Your task to perform on an android device: Go to notification settings Image 0: 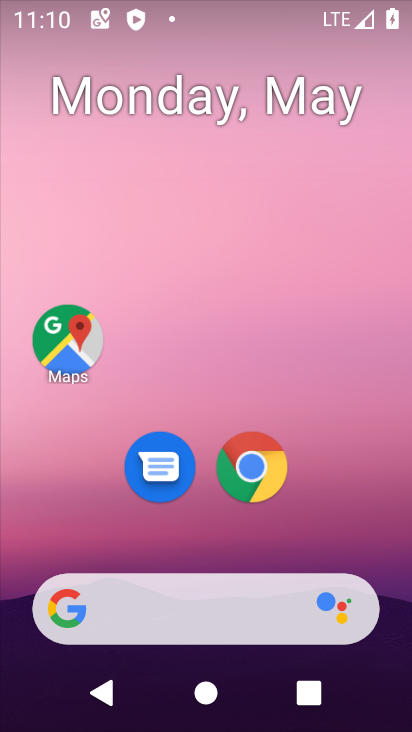
Step 0: drag from (377, 707) to (326, 233)
Your task to perform on an android device: Go to notification settings Image 1: 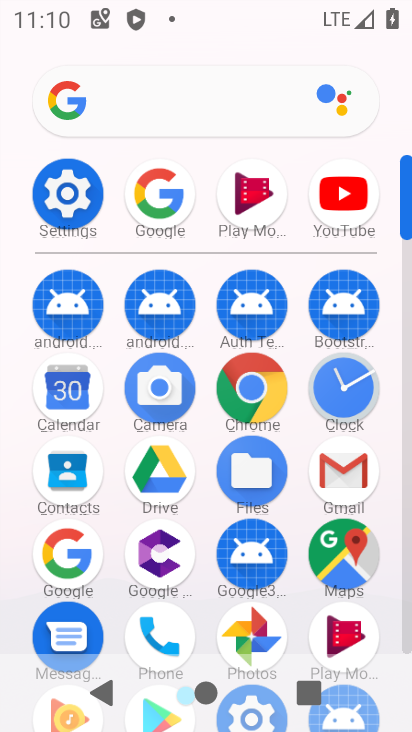
Step 1: click (74, 201)
Your task to perform on an android device: Go to notification settings Image 2: 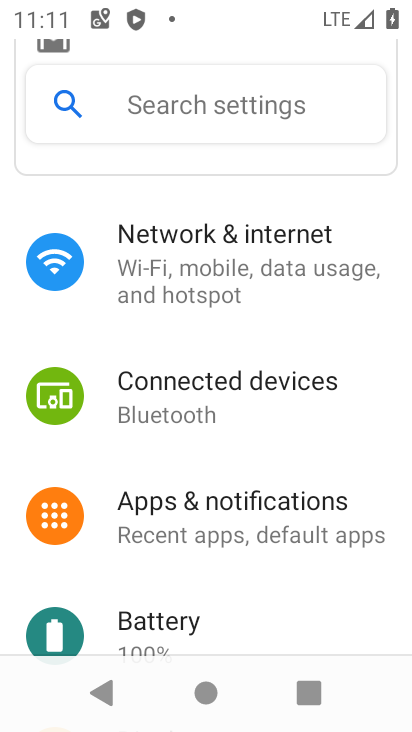
Step 2: click (224, 514)
Your task to perform on an android device: Go to notification settings Image 3: 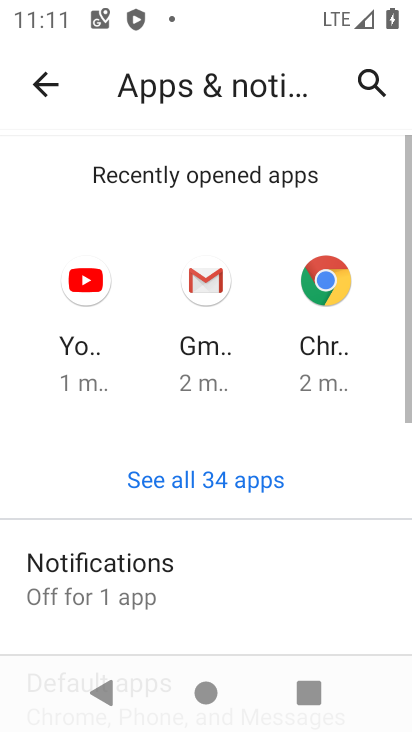
Step 3: click (115, 588)
Your task to perform on an android device: Go to notification settings Image 4: 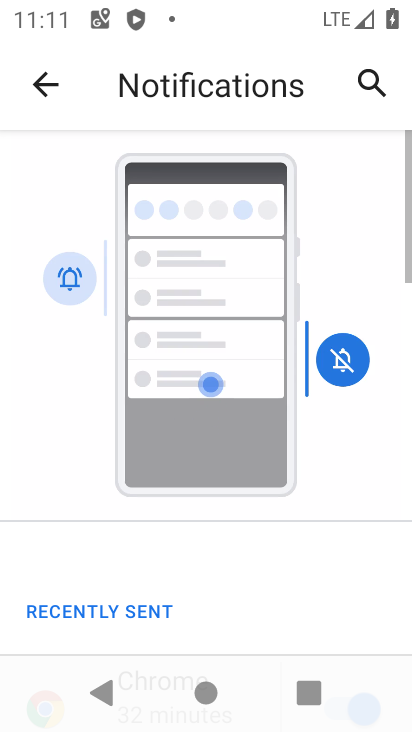
Step 4: drag from (273, 568) to (301, 179)
Your task to perform on an android device: Go to notification settings Image 5: 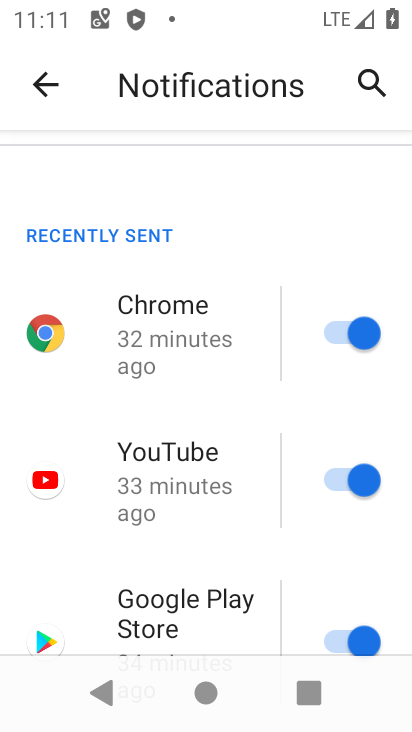
Step 5: drag from (268, 627) to (231, 246)
Your task to perform on an android device: Go to notification settings Image 6: 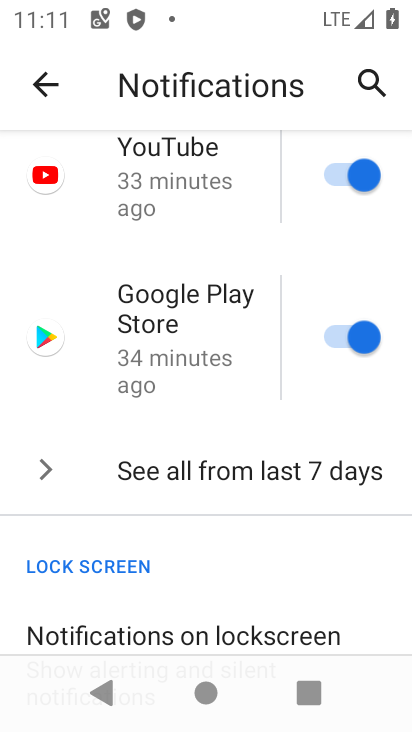
Step 6: drag from (198, 605) to (220, 330)
Your task to perform on an android device: Go to notification settings Image 7: 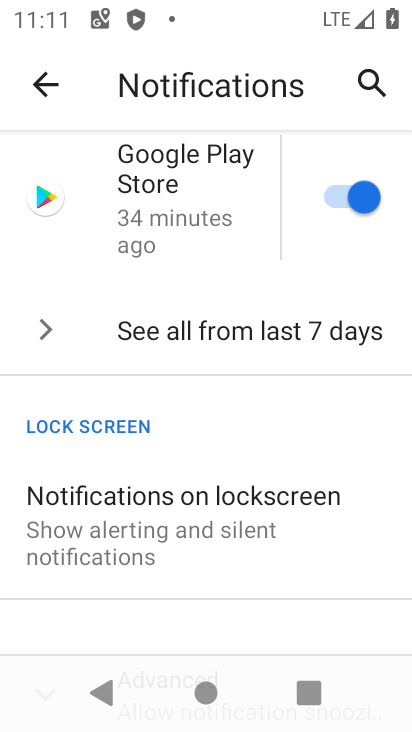
Step 7: click (116, 503)
Your task to perform on an android device: Go to notification settings Image 8: 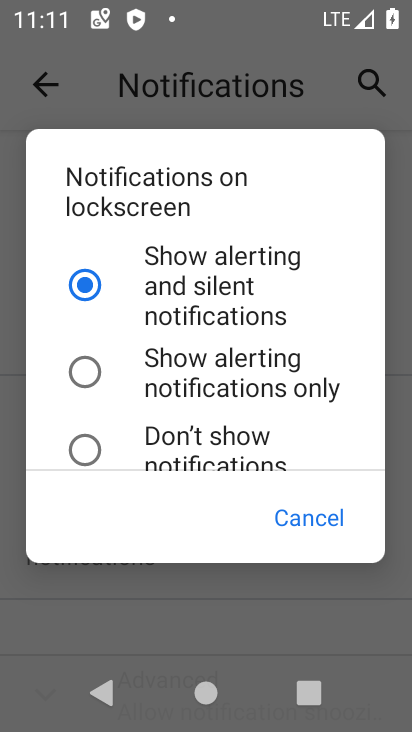
Step 8: click (310, 524)
Your task to perform on an android device: Go to notification settings Image 9: 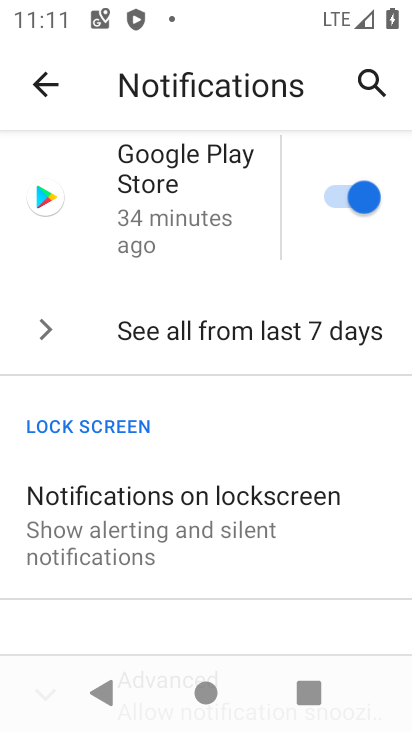
Step 9: task complete